Your task to perform on an android device: open device folders in google photos Image 0: 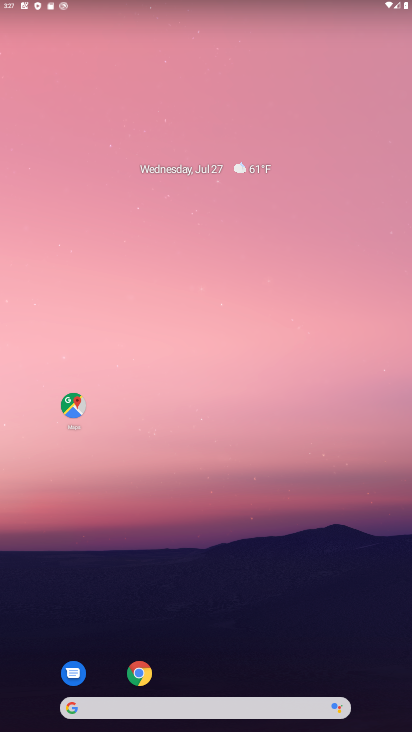
Step 0: drag from (285, 589) to (184, 116)
Your task to perform on an android device: open device folders in google photos Image 1: 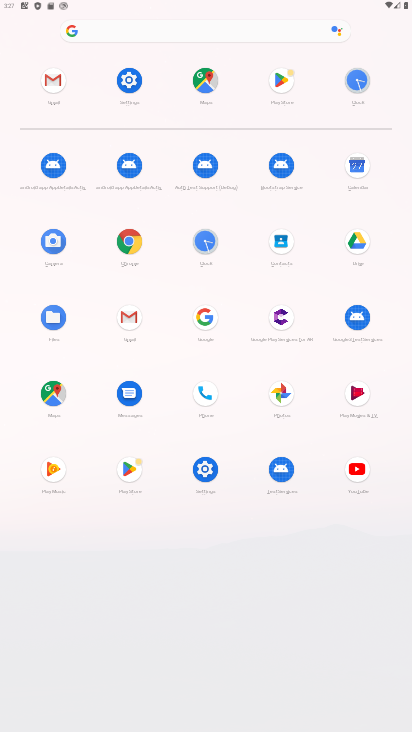
Step 1: click (285, 394)
Your task to perform on an android device: open device folders in google photos Image 2: 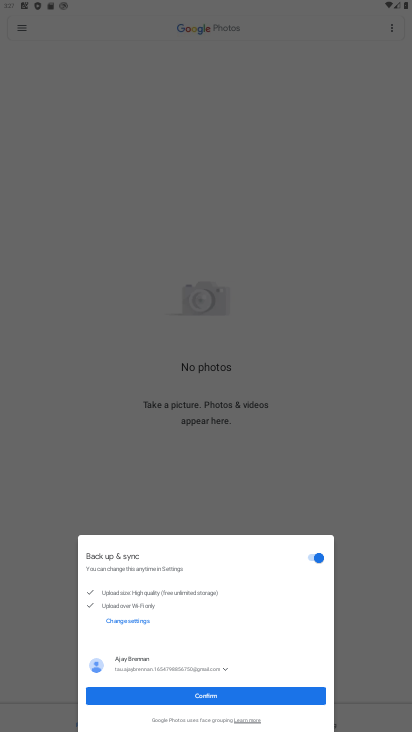
Step 2: click (217, 694)
Your task to perform on an android device: open device folders in google photos Image 3: 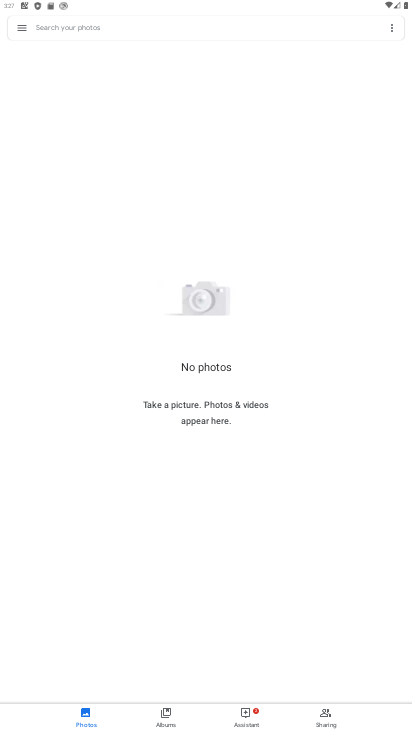
Step 3: click (19, 28)
Your task to perform on an android device: open device folders in google photos Image 4: 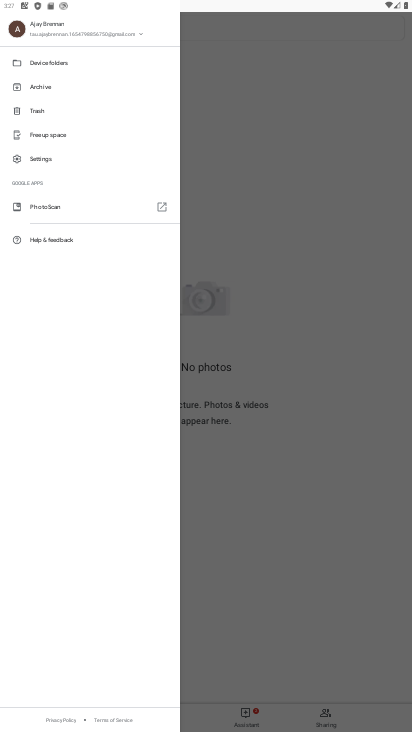
Step 4: click (46, 60)
Your task to perform on an android device: open device folders in google photos Image 5: 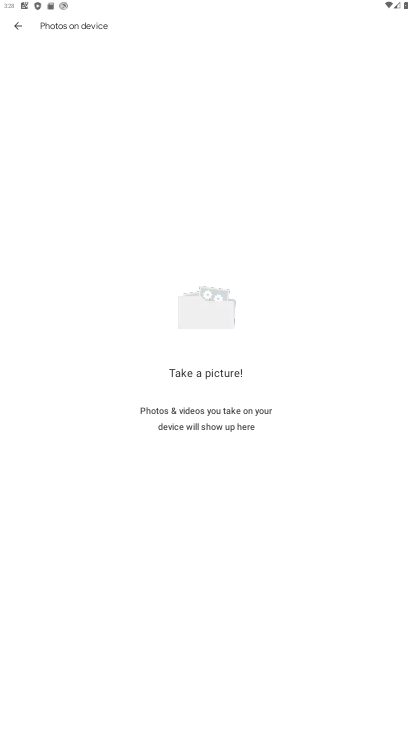
Step 5: task complete